Your task to perform on an android device: Open the Play Movies app and select the watchlist tab. Image 0: 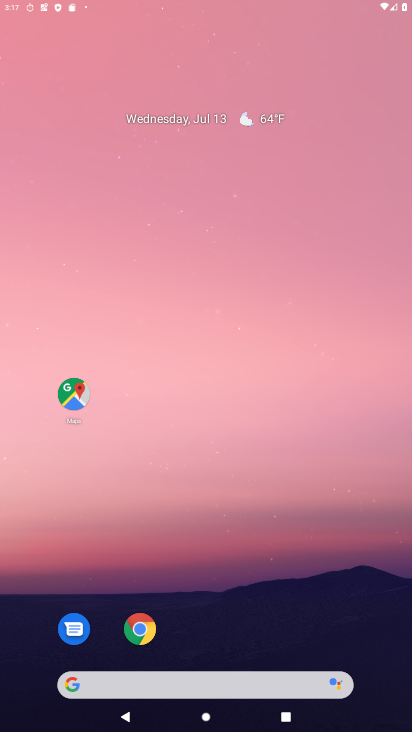
Step 0: drag from (269, 691) to (249, 0)
Your task to perform on an android device: Open the Play Movies app and select the watchlist tab. Image 1: 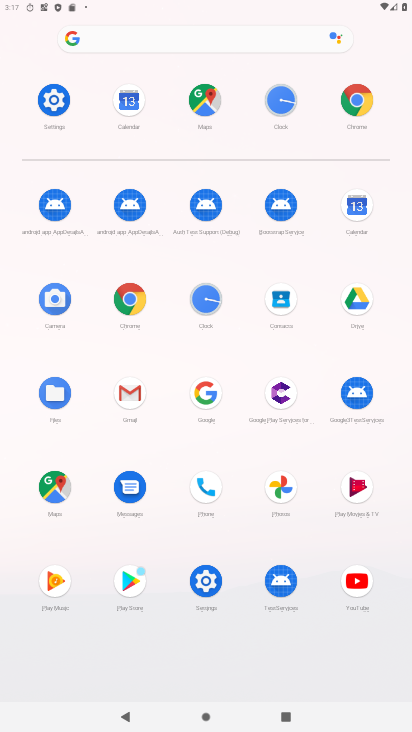
Step 1: click (355, 491)
Your task to perform on an android device: Open the Play Movies app and select the watchlist tab. Image 2: 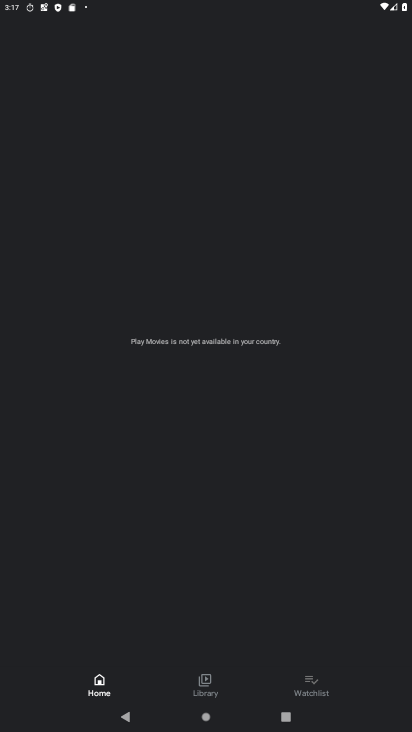
Step 2: click (318, 687)
Your task to perform on an android device: Open the Play Movies app and select the watchlist tab. Image 3: 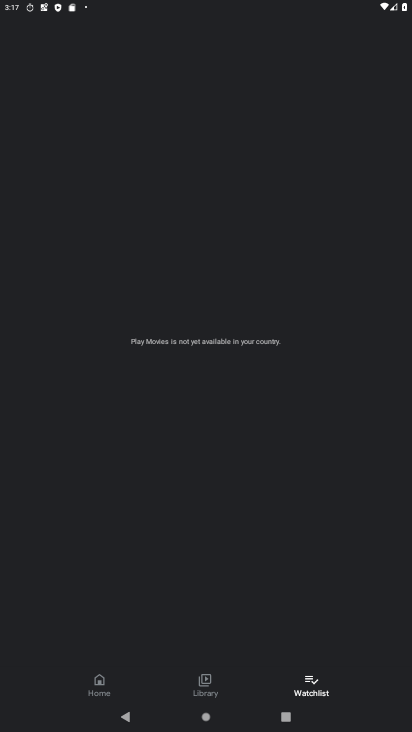
Step 3: task complete